Your task to perform on an android device: Open Yahoo.com Image 0: 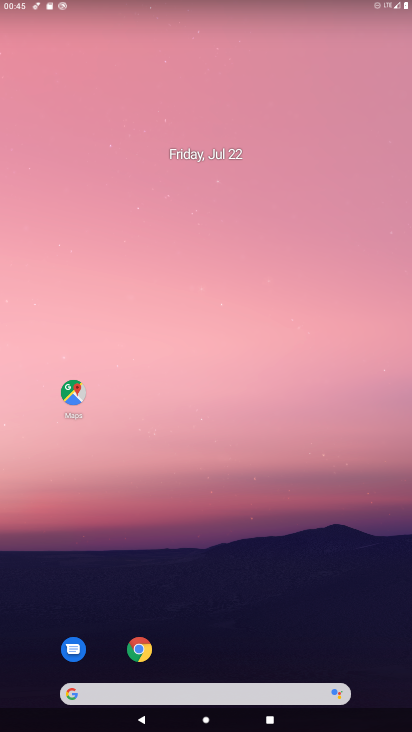
Step 0: click (140, 652)
Your task to perform on an android device: Open Yahoo.com Image 1: 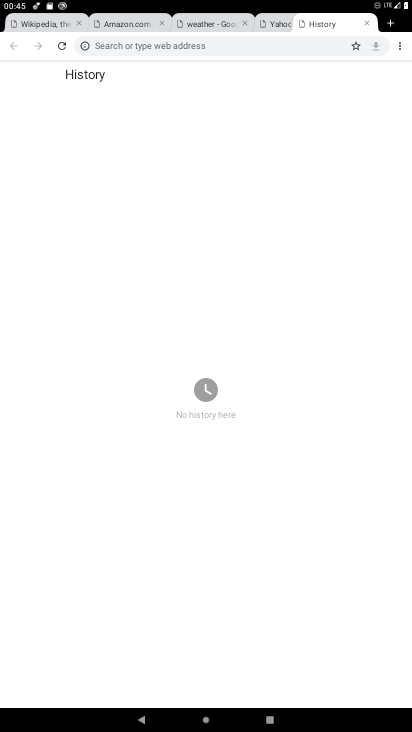
Step 1: click (399, 44)
Your task to perform on an android device: Open Yahoo.com Image 2: 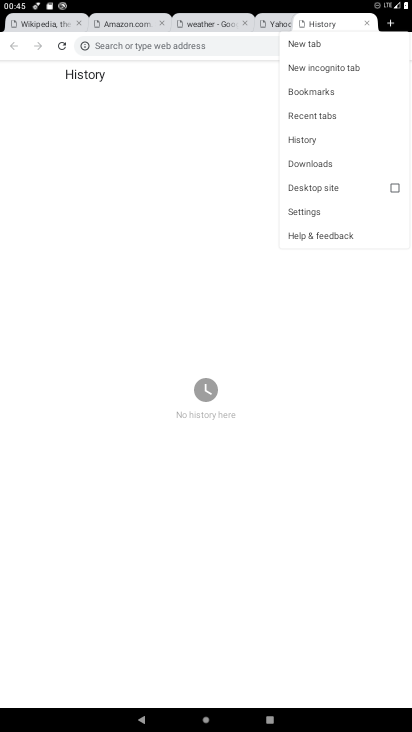
Step 2: click (298, 40)
Your task to perform on an android device: Open Yahoo.com Image 3: 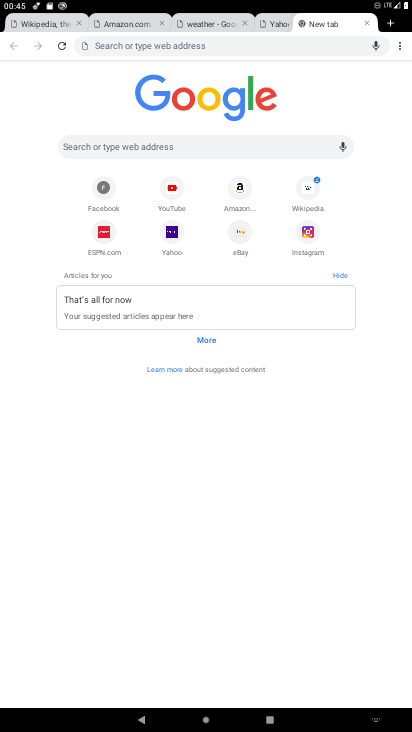
Step 3: click (167, 233)
Your task to perform on an android device: Open Yahoo.com Image 4: 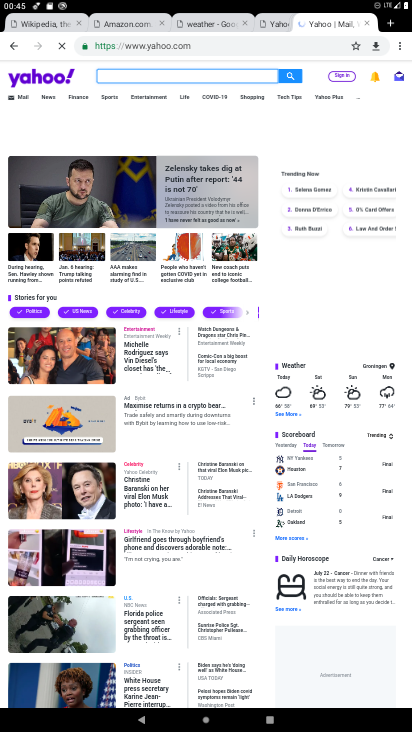
Step 4: task complete